Your task to perform on an android device: Open Maps and search for coffee Image 0: 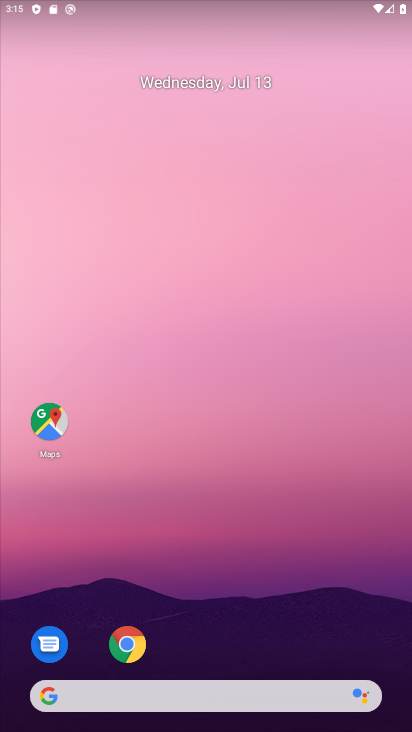
Step 0: drag from (195, 524) to (260, 139)
Your task to perform on an android device: Open Maps and search for coffee Image 1: 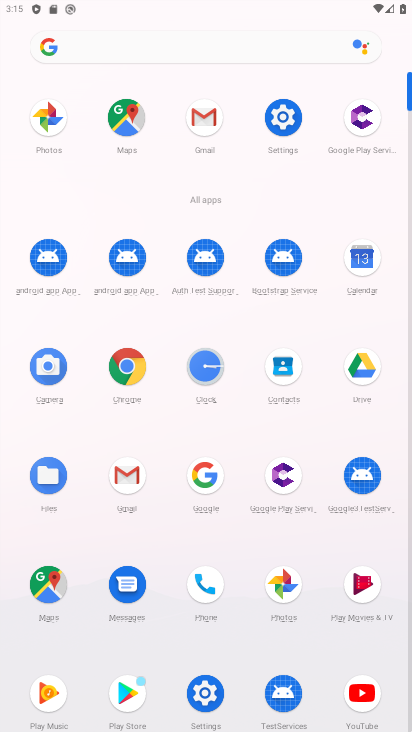
Step 1: click (53, 571)
Your task to perform on an android device: Open Maps and search for coffee Image 2: 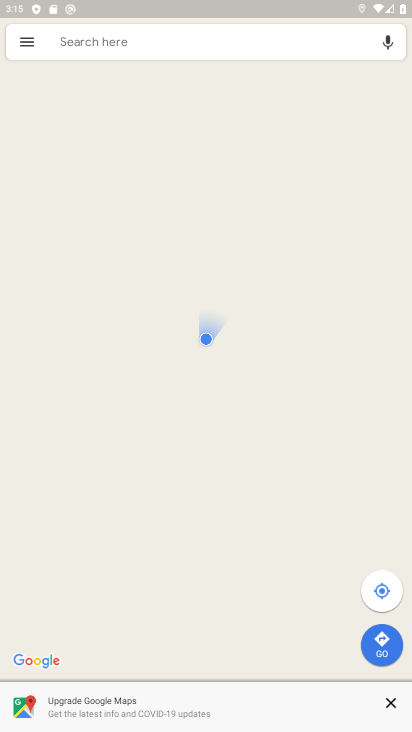
Step 2: drag from (187, 602) to (222, 358)
Your task to perform on an android device: Open Maps and search for coffee Image 3: 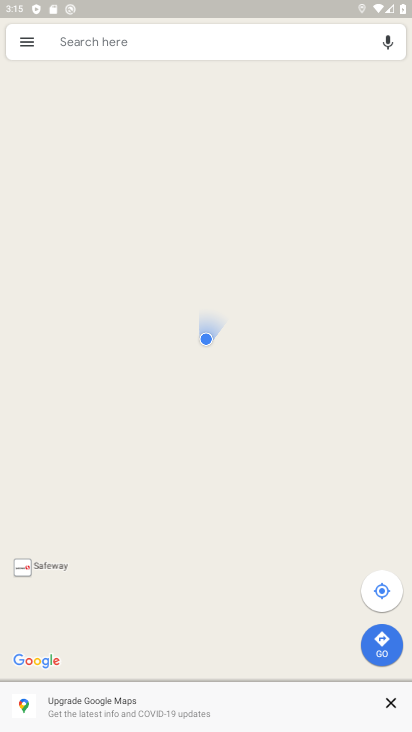
Step 3: click (122, 27)
Your task to perform on an android device: Open Maps and search for coffee Image 4: 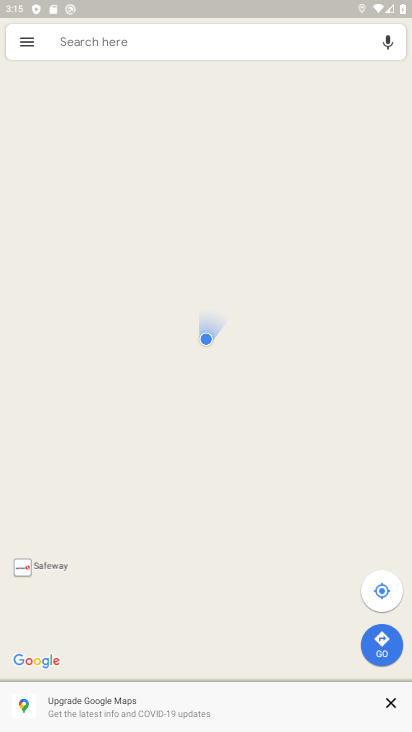
Step 4: click (85, 33)
Your task to perform on an android device: Open Maps and search for coffee Image 5: 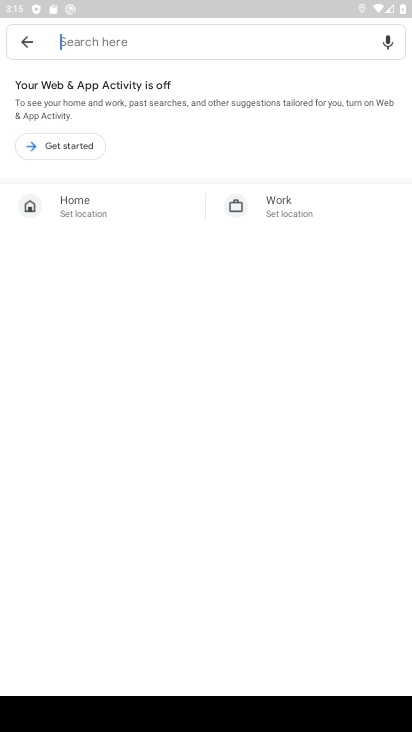
Step 5: type "coffee"
Your task to perform on an android device: Open Maps and search for coffee Image 6: 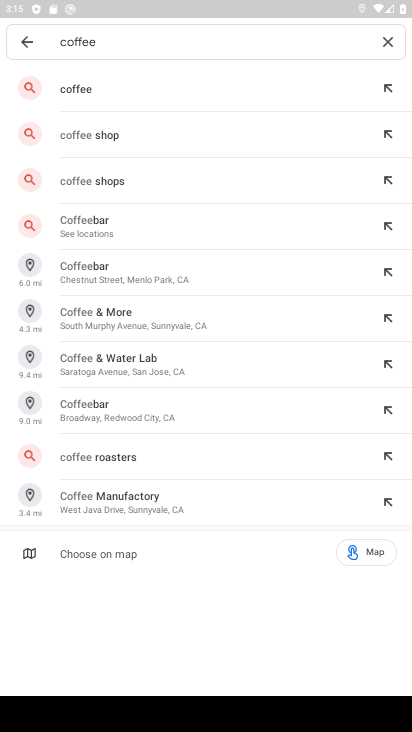
Step 6: click (156, 84)
Your task to perform on an android device: Open Maps and search for coffee Image 7: 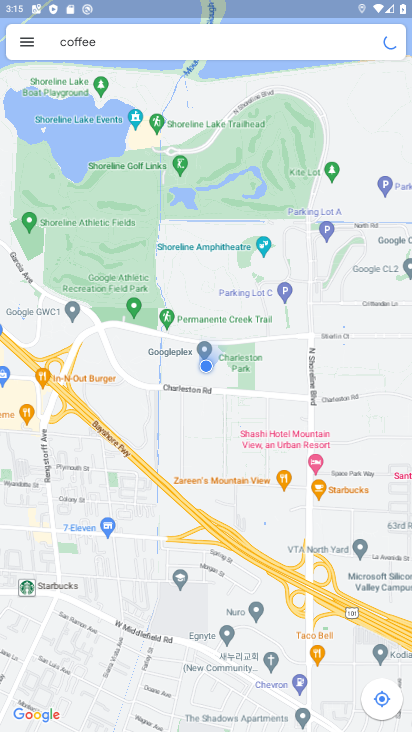
Step 7: drag from (199, 96) to (223, 510)
Your task to perform on an android device: Open Maps and search for coffee Image 8: 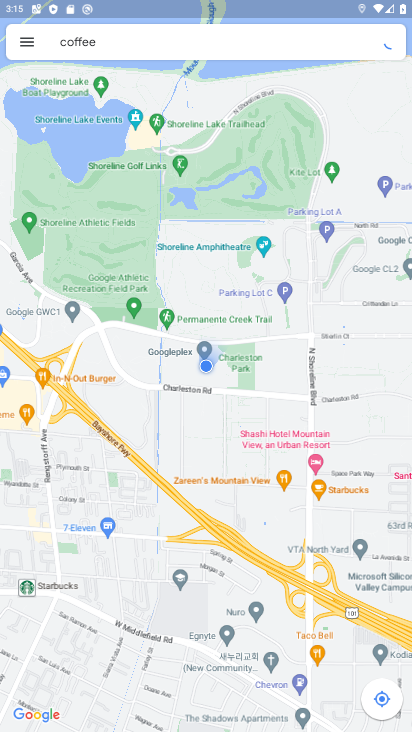
Step 8: drag from (239, 368) to (270, 509)
Your task to perform on an android device: Open Maps and search for coffee Image 9: 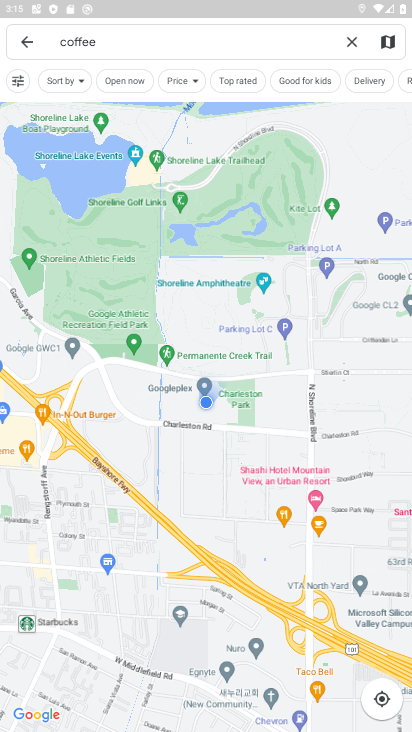
Step 9: drag from (189, 182) to (245, 431)
Your task to perform on an android device: Open Maps and search for coffee Image 10: 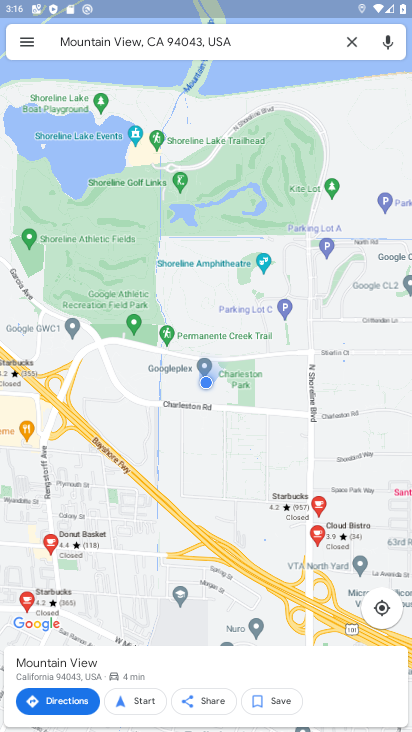
Step 10: drag from (217, 169) to (237, 455)
Your task to perform on an android device: Open Maps and search for coffee Image 11: 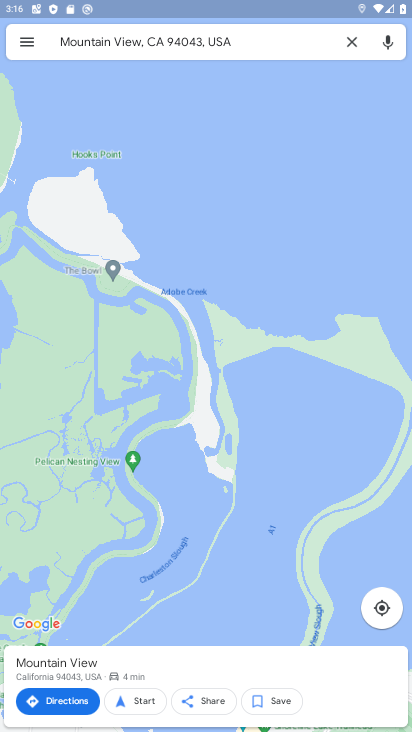
Step 11: click (351, 39)
Your task to perform on an android device: Open Maps and search for coffee Image 12: 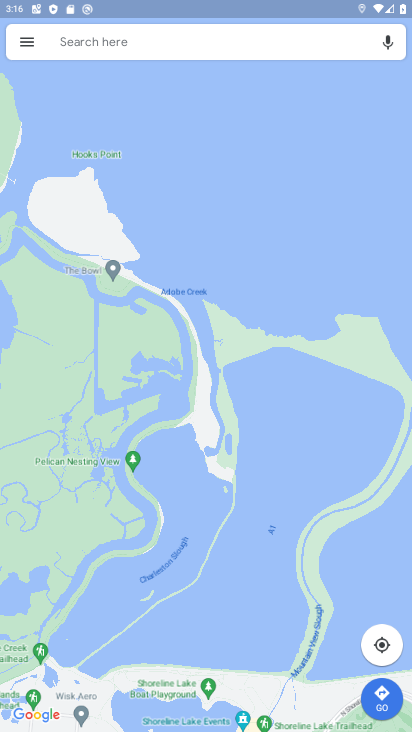
Step 12: type "coffee"
Your task to perform on an android device: Open Maps and search for coffee Image 13: 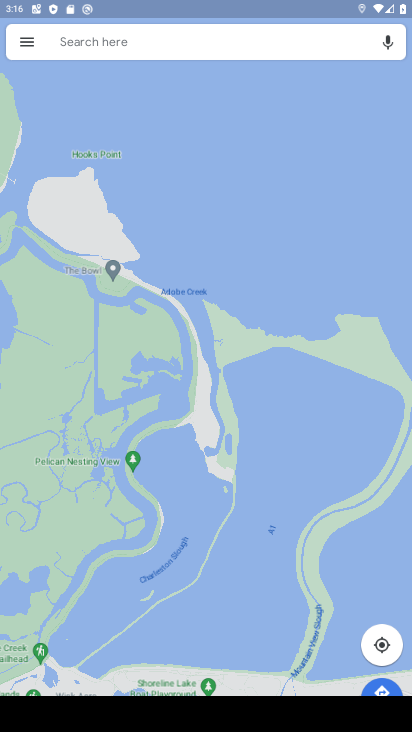
Step 13: click (99, 36)
Your task to perform on an android device: Open Maps and search for coffee Image 14: 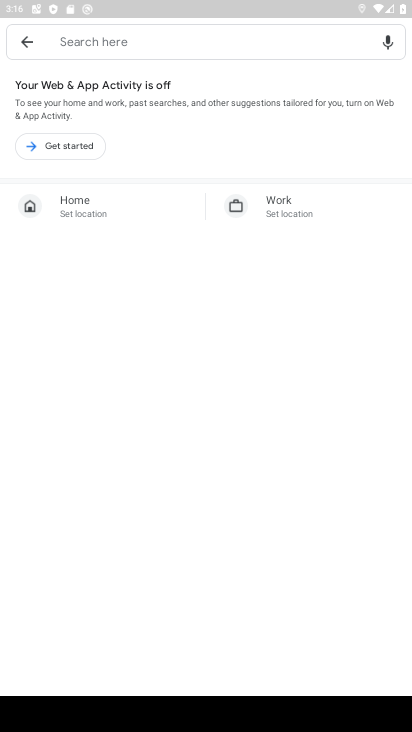
Step 14: type "coffee"
Your task to perform on an android device: Open Maps and search for coffee Image 15: 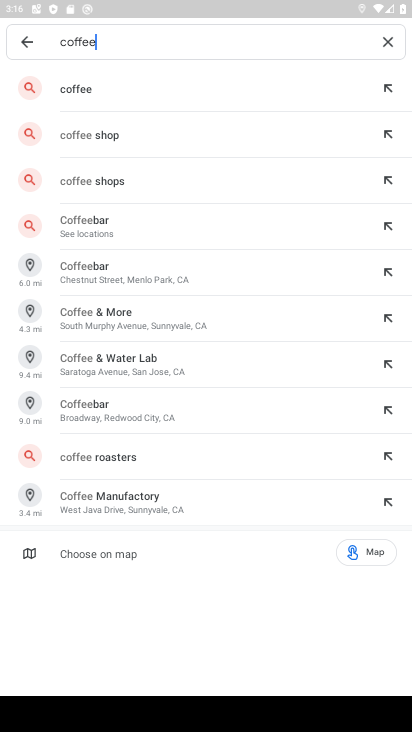
Step 15: click (143, 86)
Your task to perform on an android device: Open Maps and search for coffee Image 16: 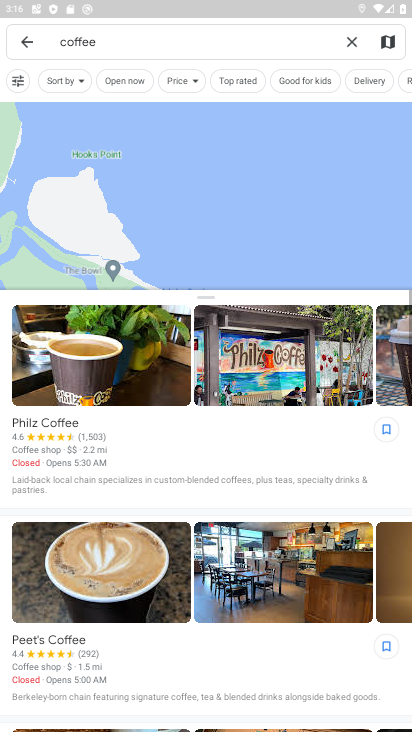
Step 16: task complete